Your task to perform on an android device: turn on showing notifications on the lock screen Image 0: 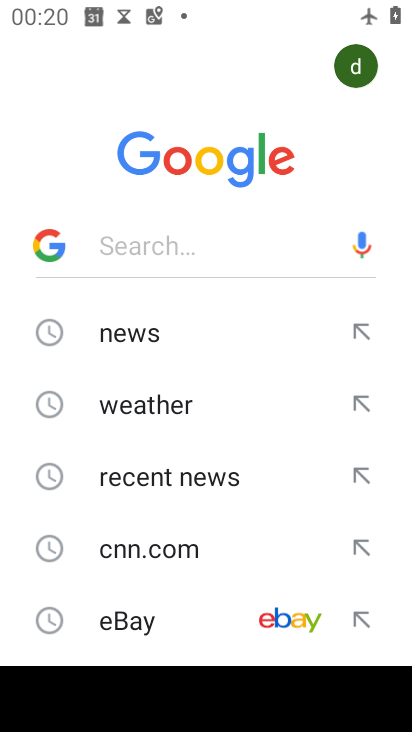
Step 0: press home button
Your task to perform on an android device: turn on showing notifications on the lock screen Image 1: 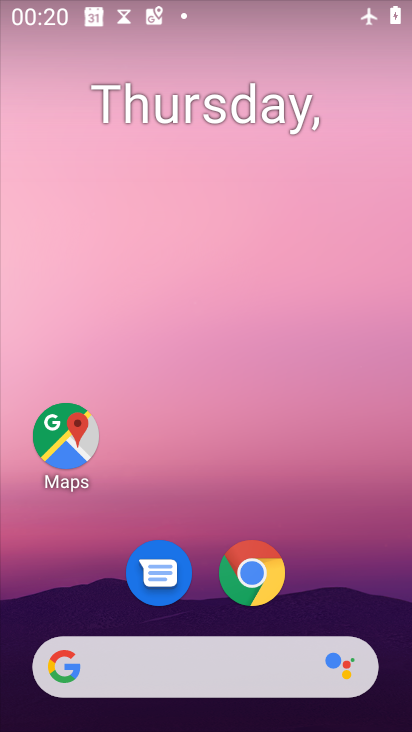
Step 1: drag from (322, 588) to (330, 274)
Your task to perform on an android device: turn on showing notifications on the lock screen Image 2: 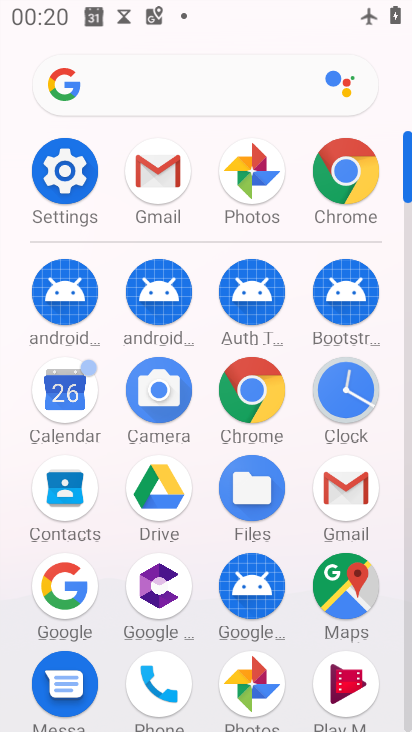
Step 2: click (63, 171)
Your task to perform on an android device: turn on showing notifications on the lock screen Image 3: 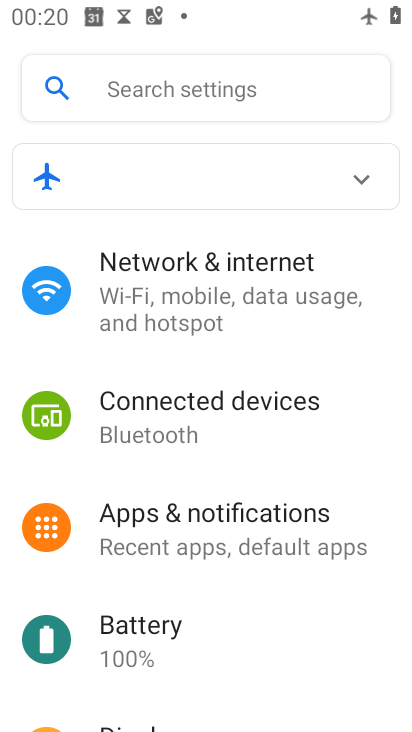
Step 3: click (224, 533)
Your task to perform on an android device: turn on showing notifications on the lock screen Image 4: 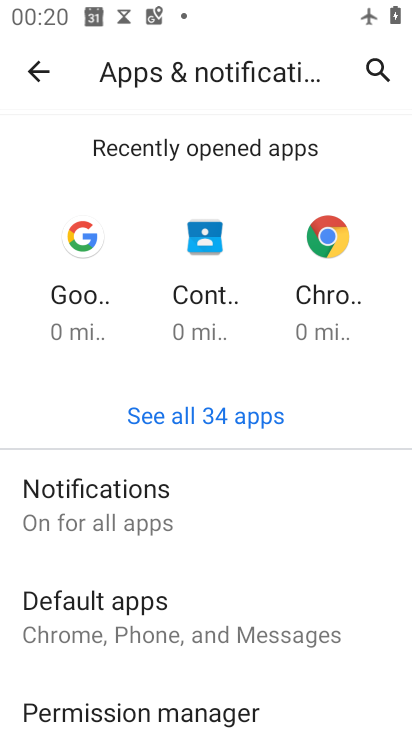
Step 4: click (146, 494)
Your task to perform on an android device: turn on showing notifications on the lock screen Image 5: 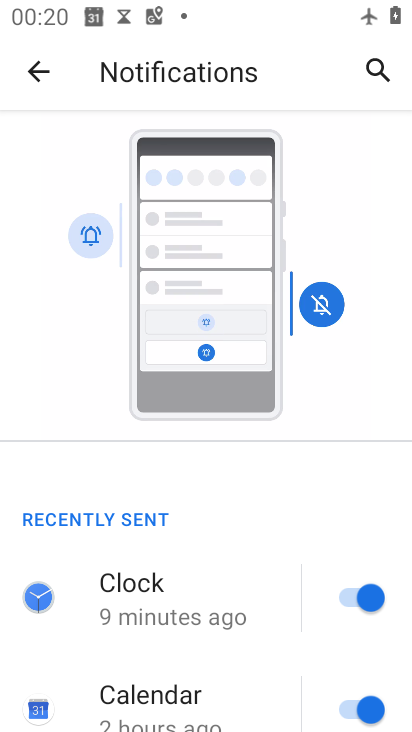
Step 5: drag from (208, 572) to (243, 227)
Your task to perform on an android device: turn on showing notifications on the lock screen Image 6: 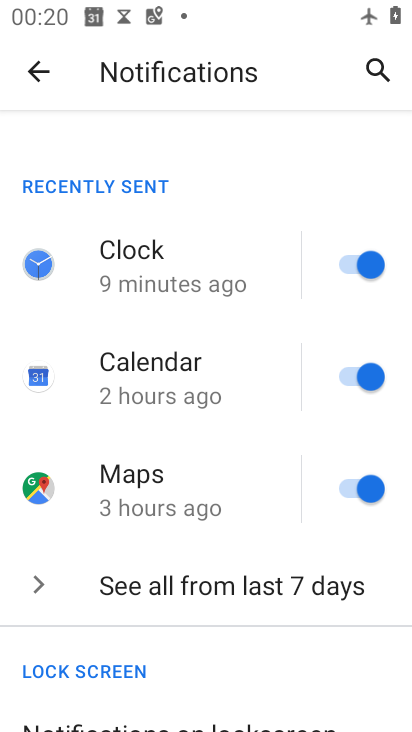
Step 6: drag from (228, 574) to (245, 204)
Your task to perform on an android device: turn on showing notifications on the lock screen Image 7: 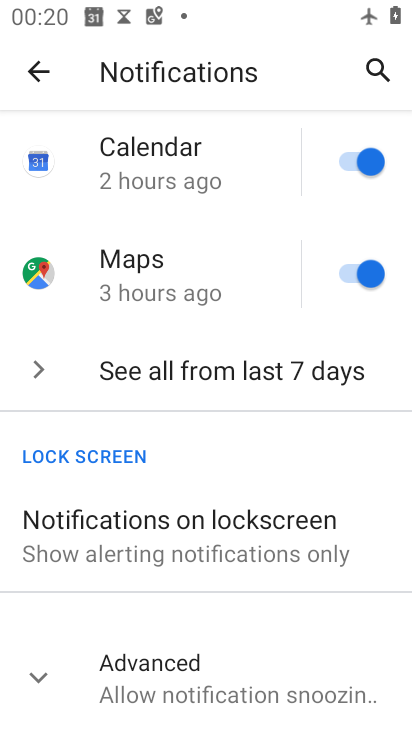
Step 7: click (170, 531)
Your task to perform on an android device: turn on showing notifications on the lock screen Image 8: 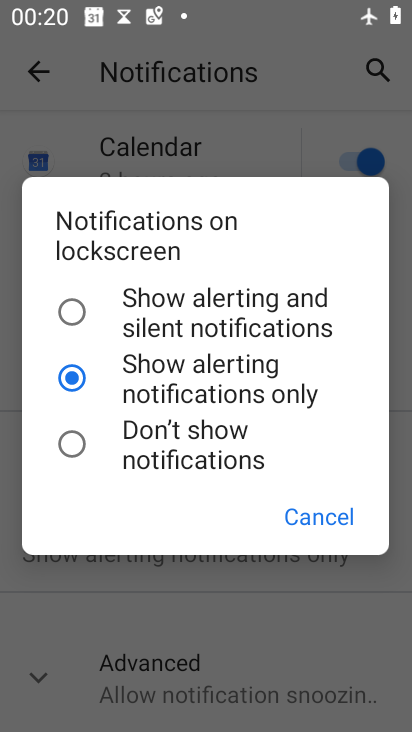
Step 8: click (154, 288)
Your task to perform on an android device: turn on showing notifications on the lock screen Image 9: 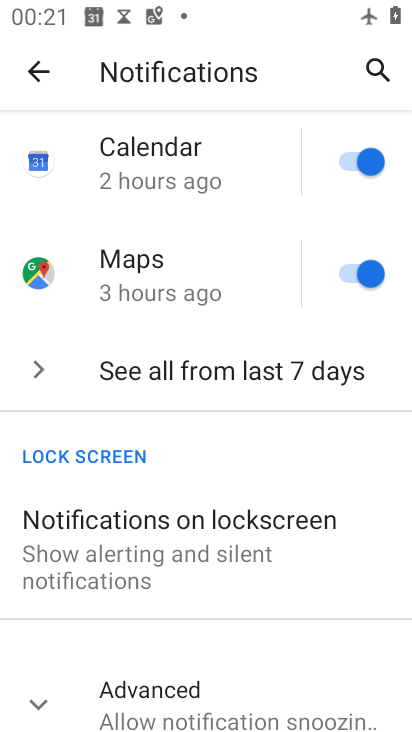
Step 9: task complete